Your task to perform on an android device: see creations saved in the google photos Image 0: 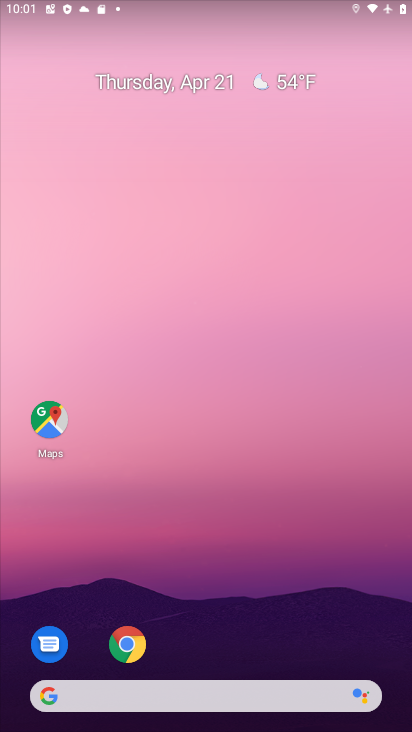
Step 0: drag from (238, 630) to (187, 124)
Your task to perform on an android device: see creations saved in the google photos Image 1: 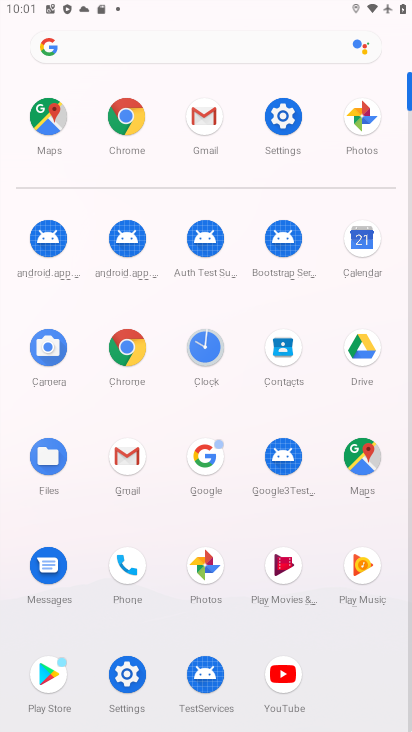
Step 1: click (359, 125)
Your task to perform on an android device: see creations saved in the google photos Image 2: 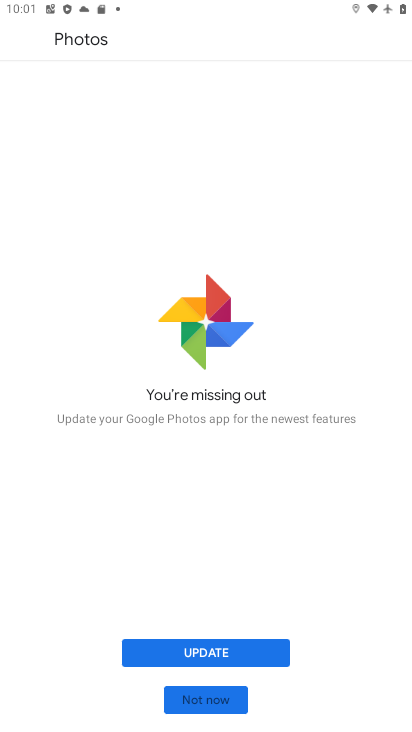
Step 2: click (180, 701)
Your task to perform on an android device: see creations saved in the google photos Image 3: 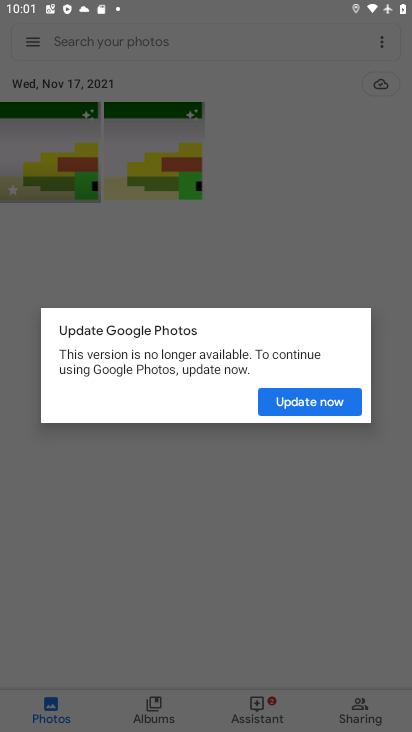
Step 3: click (305, 406)
Your task to perform on an android device: see creations saved in the google photos Image 4: 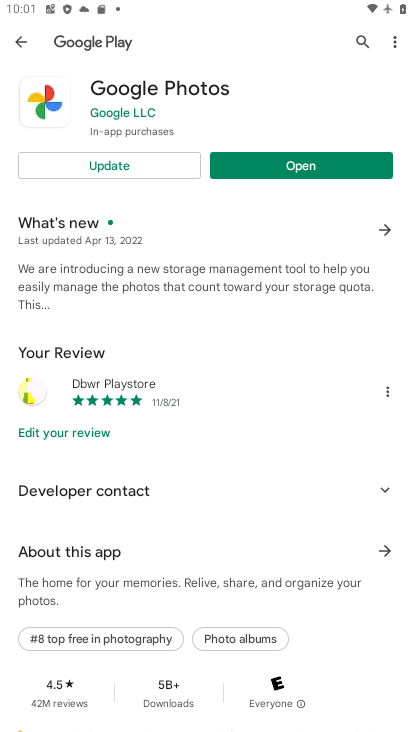
Step 4: press back button
Your task to perform on an android device: see creations saved in the google photos Image 5: 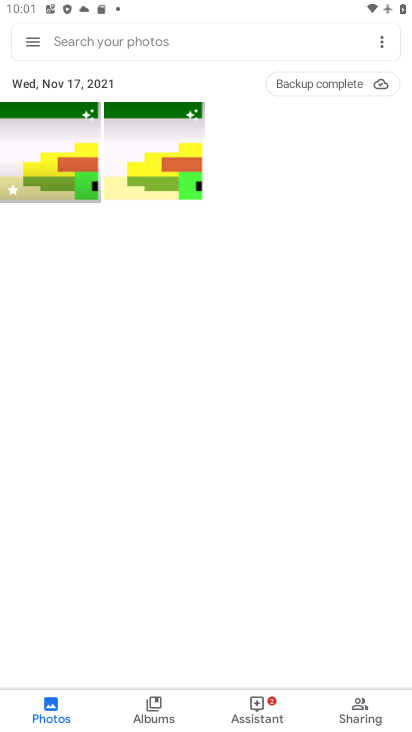
Step 5: click (130, 40)
Your task to perform on an android device: see creations saved in the google photos Image 6: 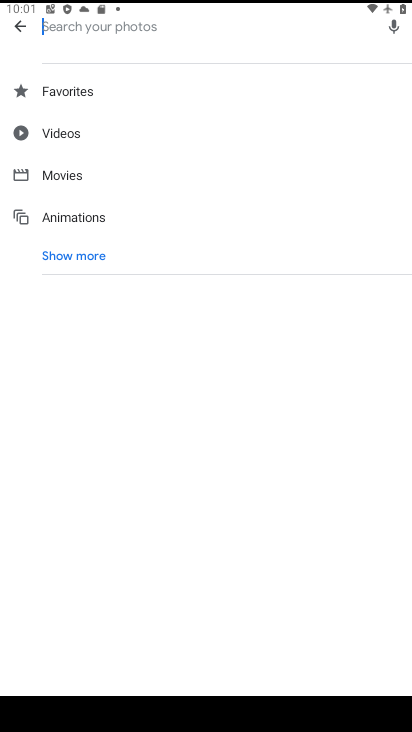
Step 6: click (56, 252)
Your task to perform on an android device: see creations saved in the google photos Image 7: 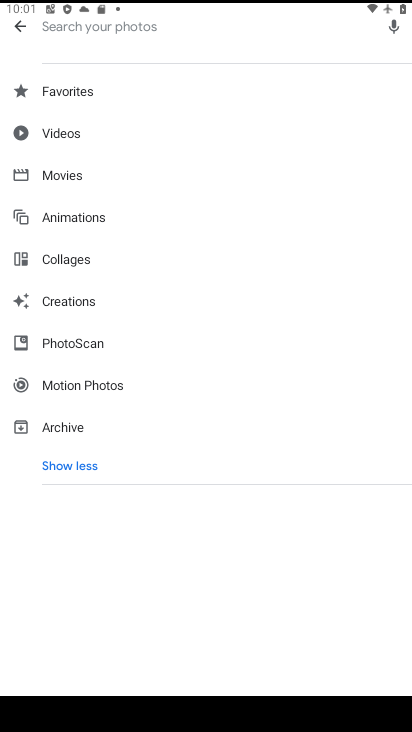
Step 7: click (79, 301)
Your task to perform on an android device: see creations saved in the google photos Image 8: 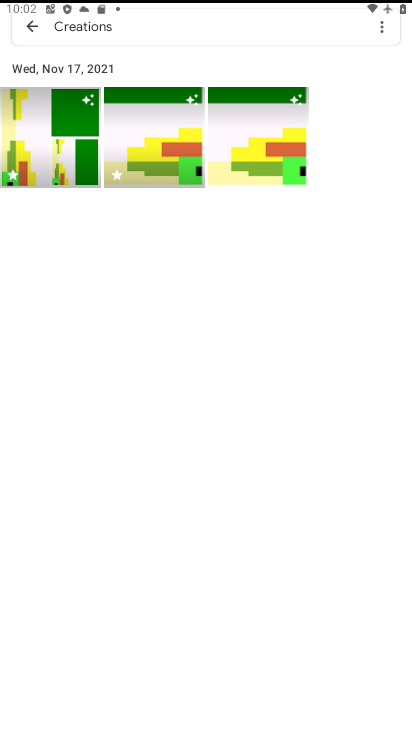
Step 8: task complete